Your task to perform on an android device: Search for sushi restaurants on Maps Image 0: 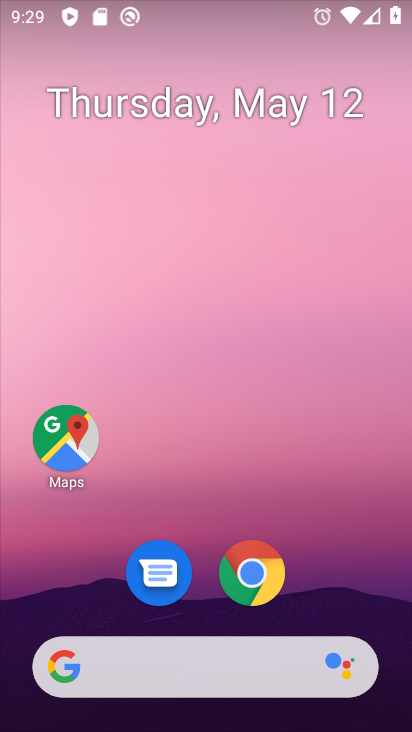
Step 0: click (64, 441)
Your task to perform on an android device: Search for sushi restaurants on Maps Image 1: 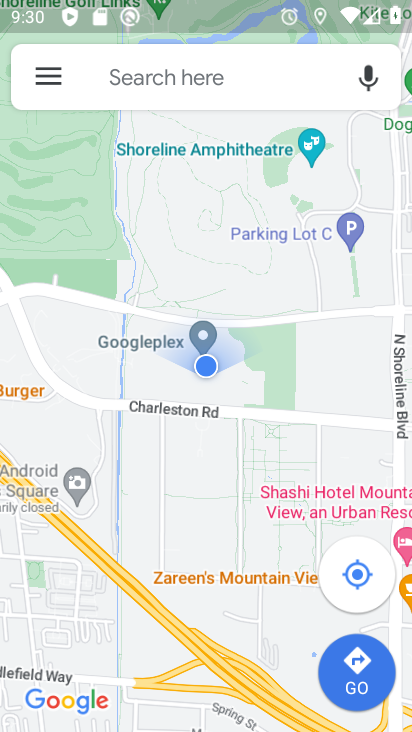
Step 1: click (225, 69)
Your task to perform on an android device: Search for sushi restaurants on Maps Image 2: 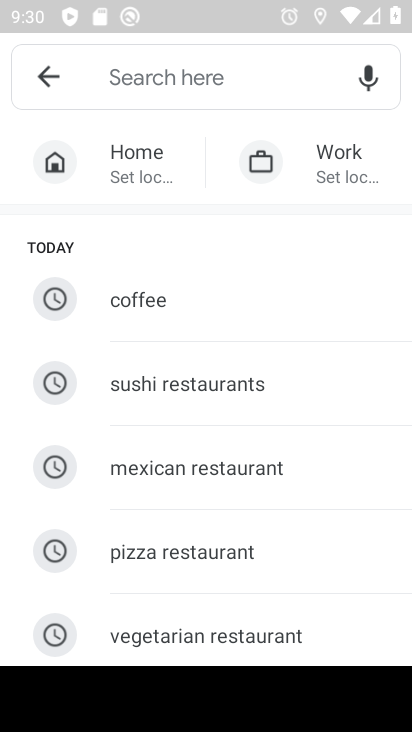
Step 2: type "sushi restaurants"
Your task to perform on an android device: Search for sushi restaurants on Maps Image 3: 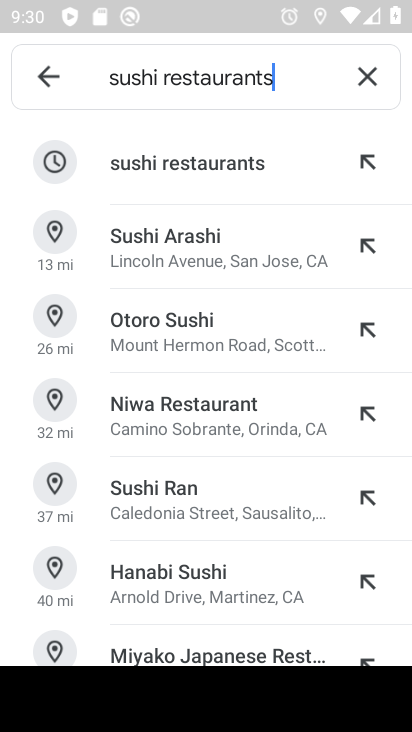
Step 3: click (226, 167)
Your task to perform on an android device: Search for sushi restaurants on Maps Image 4: 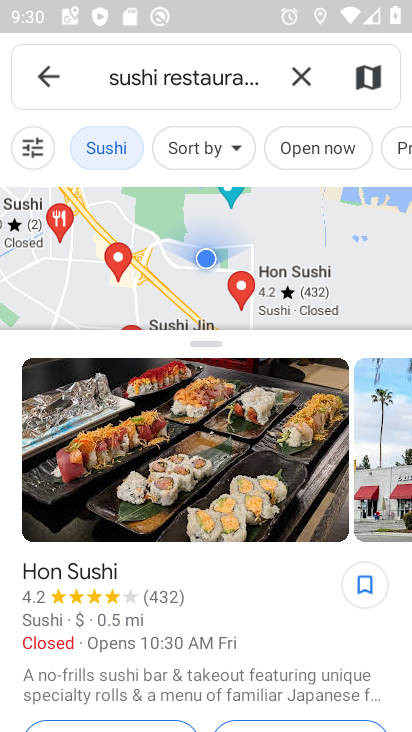
Step 4: task complete